Your task to perform on an android device: turn on javascript in the chrome app Image 0: 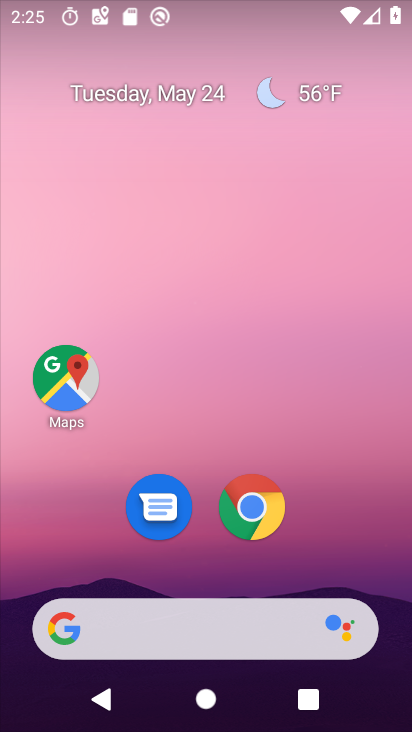
Step 0: click (248, 495)
Your task to perform on an android device: turn on javascript in the chrome app Image 1: 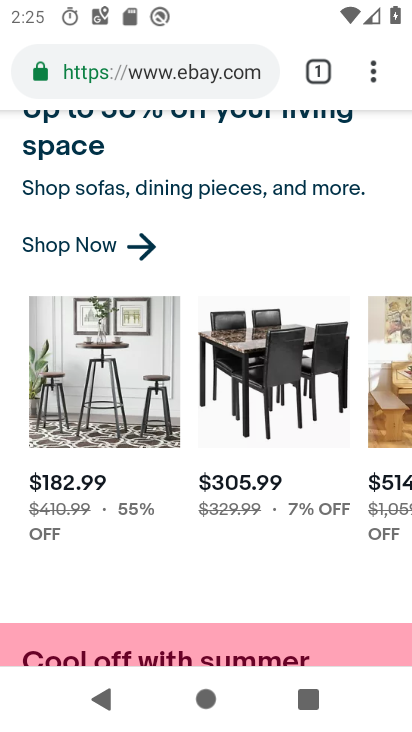
Step 1: click (367, 74)
Your task to perform on an android device: turn on javascript in the chrome app Image 2: 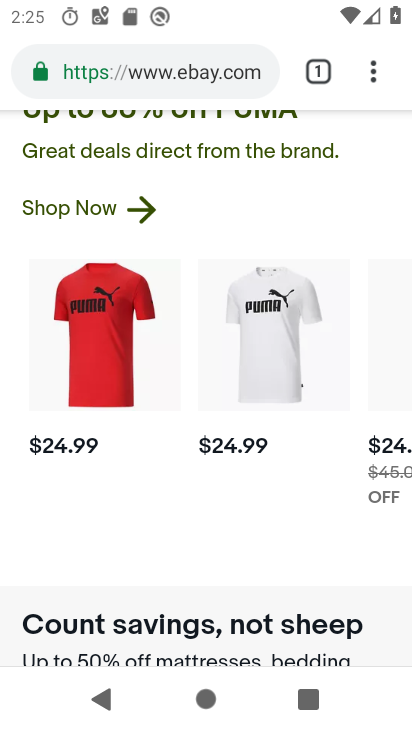
Step 2: click (368, 69)
Your task to perform on an android device: turn on javascript in the chrome app Image 3: 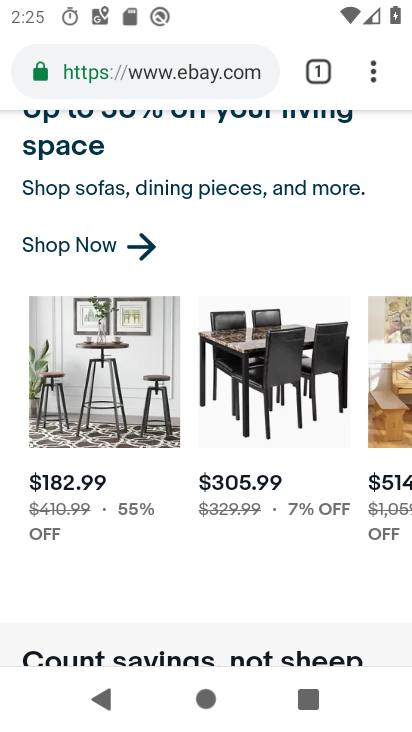
Step 3: click (371, 67)
Your task to perform on an android device: turn on javascript in the chrome app Image 4: 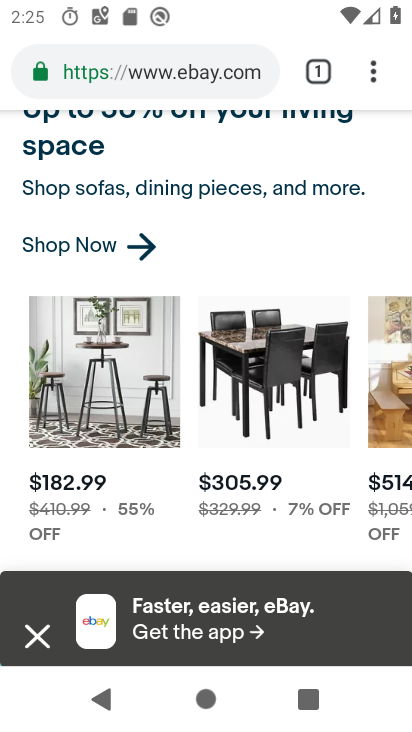
Step 4: click (370, 71)
Your task to perform on an android device: turn on javascript in the chrome app Image 5: 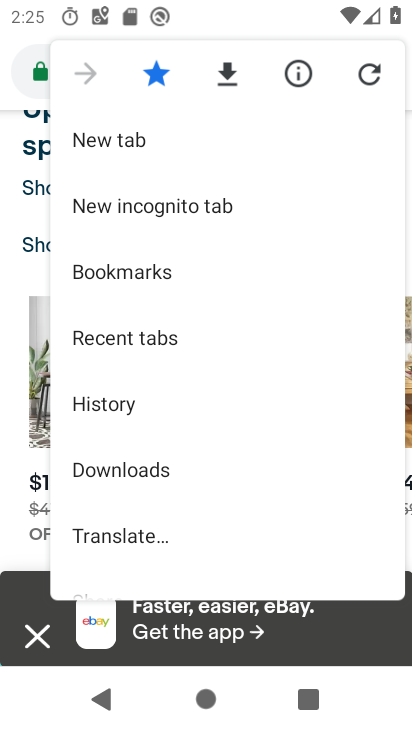
Step 5: drag from (204, 453) to (220, 78)
Your task to perform on an android device: turn on javascript in the chrome app Image 6: 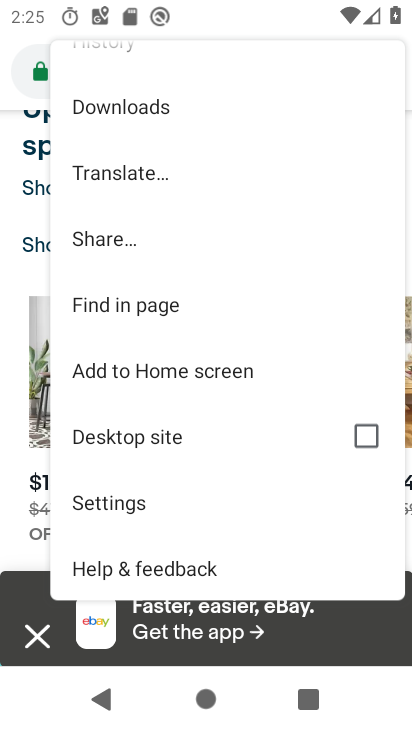
Step 6: click (159, 501)
Your task to perform on an android device: turn on javascript in the chrome app Image 7: 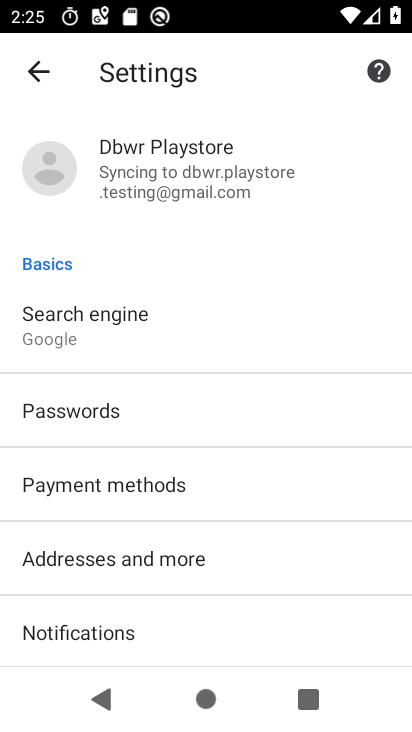
Step 7: drag from (189, 603) to (229, 141)
Your task to perform on an android device: turn on javascript in the chrome app Image 8: 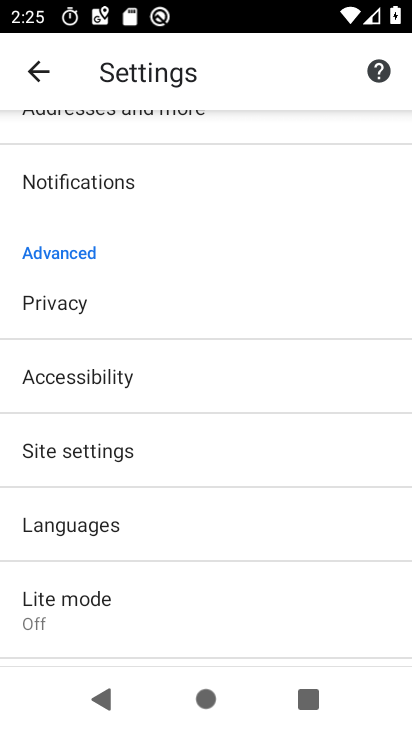
Step 8: click (153, 448)
Your task to perform on an android device: turn on javascript in the chrome app Image 9: 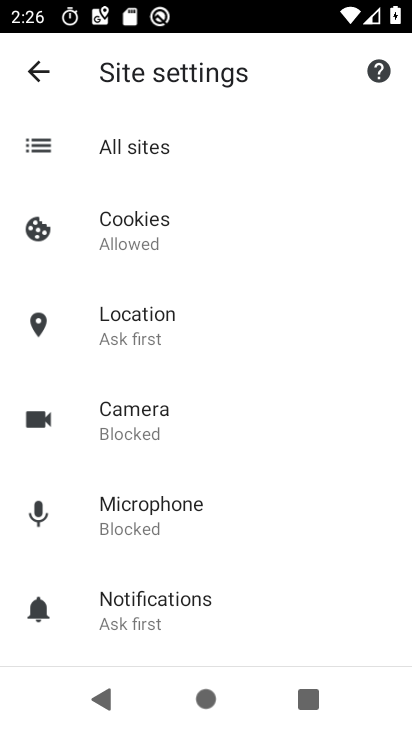
Step 9: drag from (184, 614) to (187, 169)
Your task to perform on an android device: turn on javascript in the chrome app Image 10: 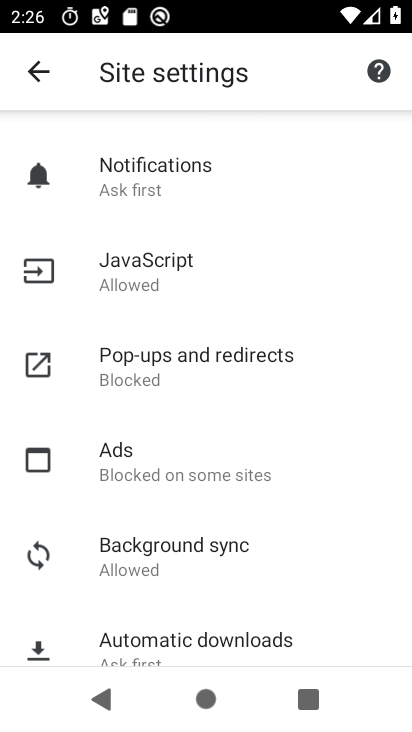
Step 10: click (72, 267)
Your task to perform on an android device: turn on javascript in the chrome app Image 11: 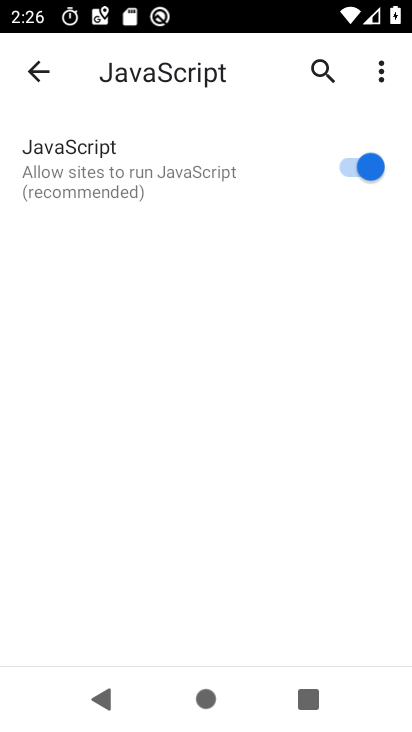
Step 11: task complete